Your task to perform on an android device: check google app version Image 0: 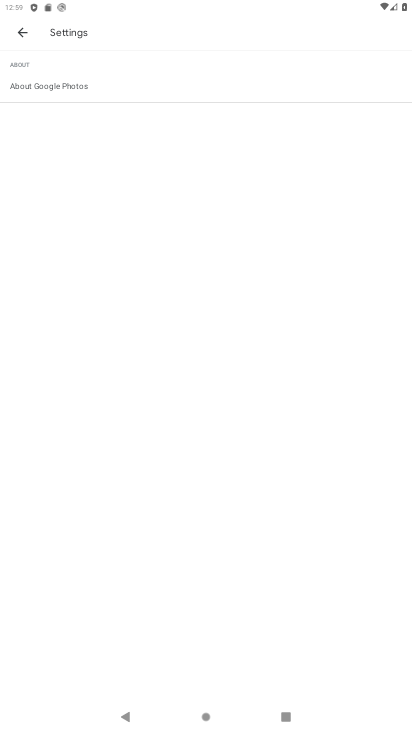
Step 0: press home button
Your task to perform on an android device: check google app version Image 1: 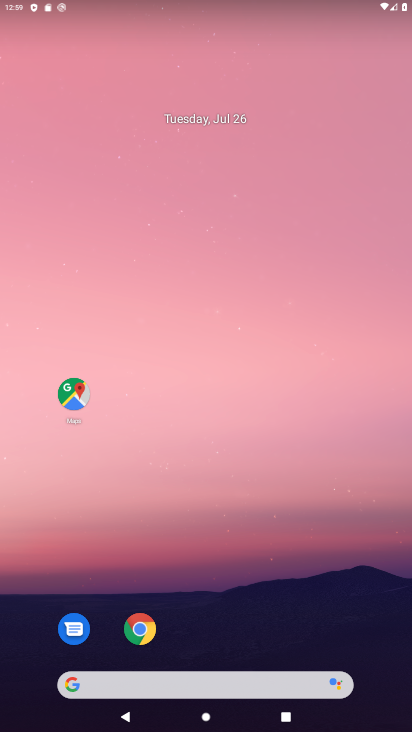
Step 1: drag from (396, 670) to (318, 96)
Your task to perform on an android device: check google app version Image 2: 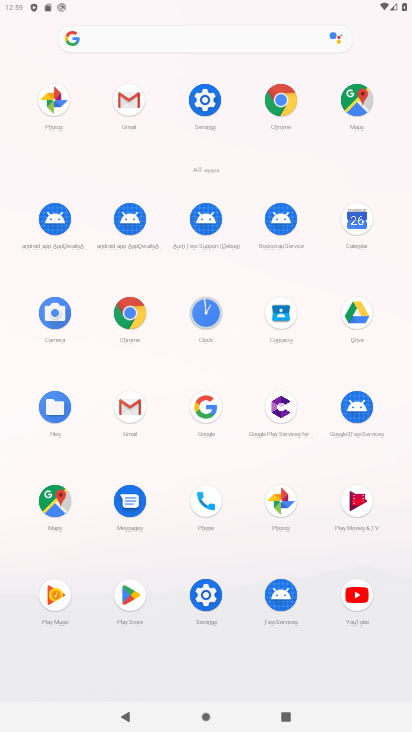
Step 2: click (202, 411)
Your task to perform on an android device: check google app version Image 3: 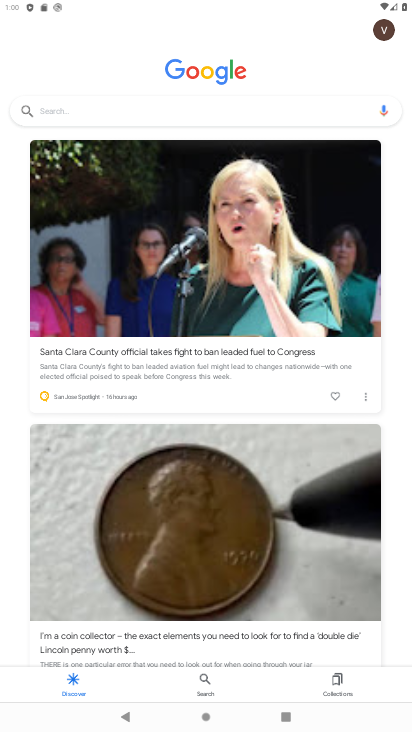
Step 3: click (333, 685)
Your task to perform on an android device: check google app version Image 4: 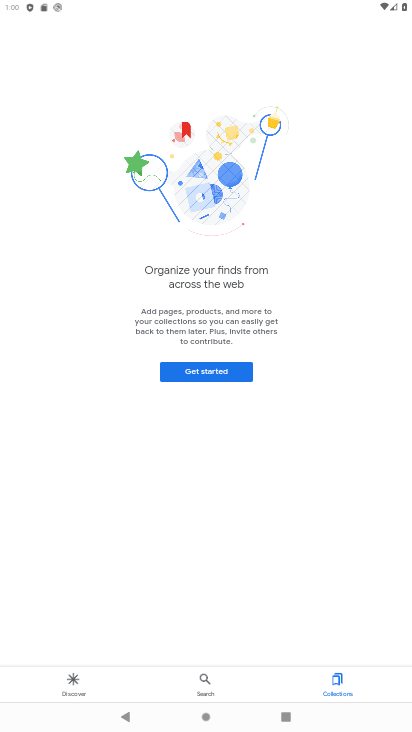
Step 4: task complete